Your task to perform on an android device: Is it going to rain tomorrow? Image 0: 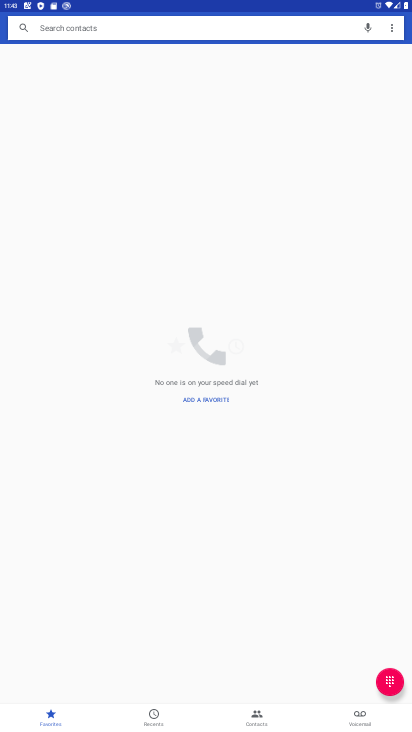
Step 0: press home button
Your task to perform on an android device: Is it going to rain tomorrow? Image 1: 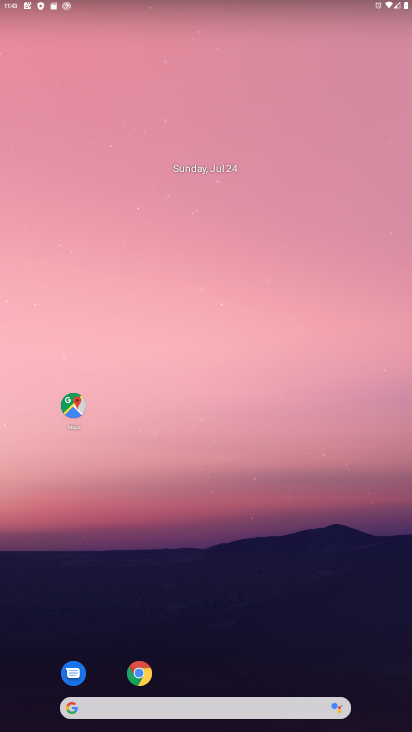
Step 1: drag from (367, 646) to (283, 118)
Your task to perform on an android device: Is it going to rain tomorrow? Image 2: 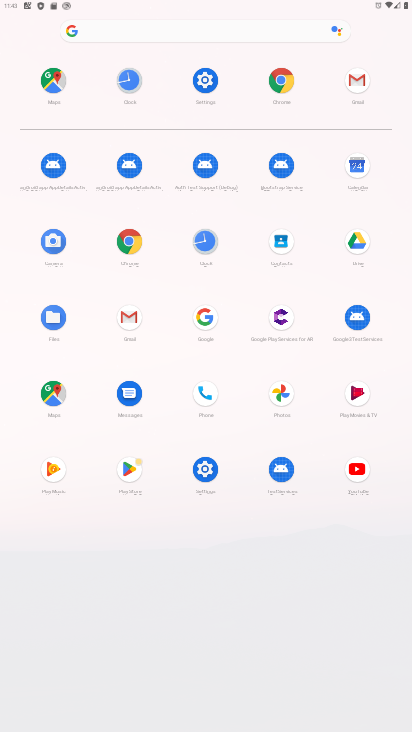
Step 2: click (277, 81)
Your task to perform on an android device: Is it going to rain tomorrow? Image 3: 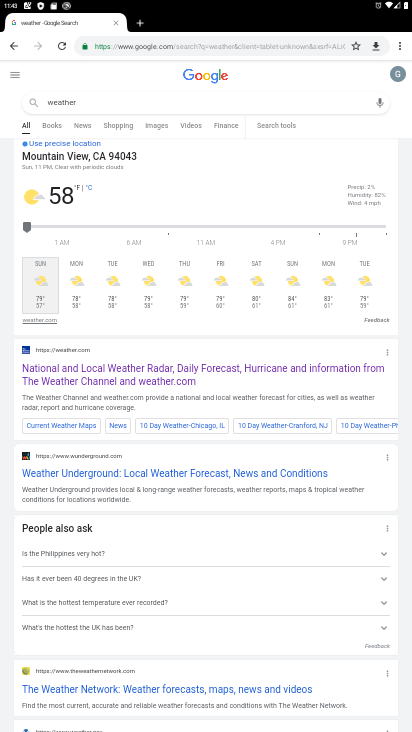
Step 3: click (88, 281)
Your task to perform on an android device: Is it going to rain tomorrow? Image 4: 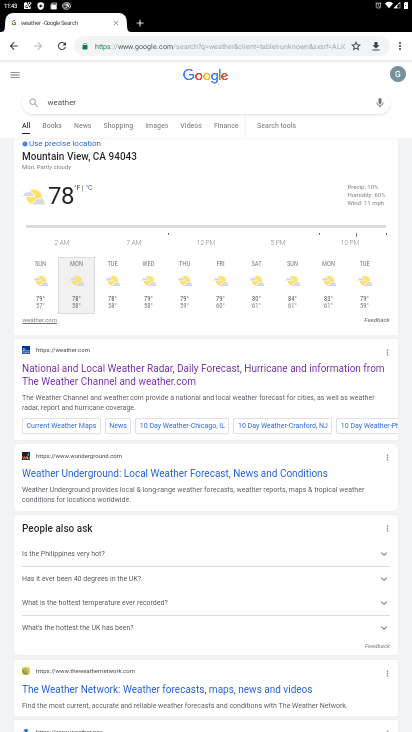
Step 4: task complete